Your task to perform on an android device: snooze an email in the gmail app Image 0: 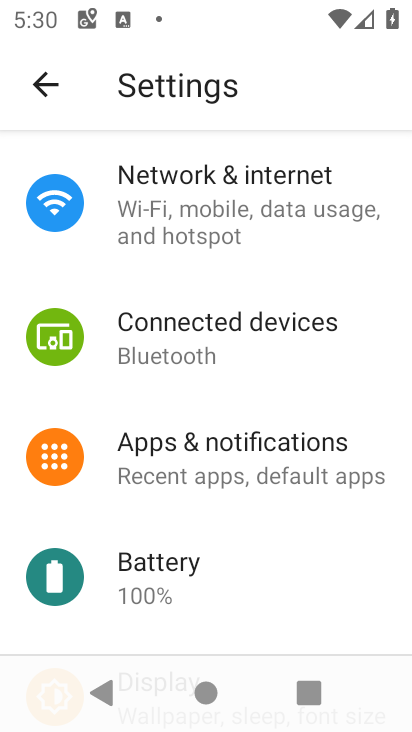
Step 0: press home button
Your task to perform on an android device: snooze an email in the gmail app Image 1: 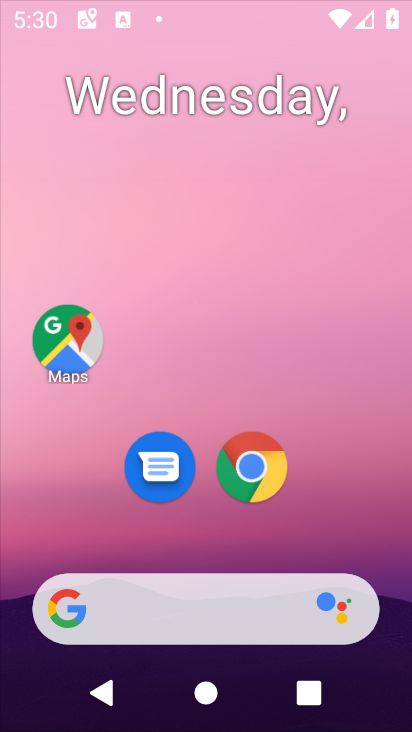
Step 1: drag from (298, 337) to (223, 15)
Your task to perform on an android device: snooze an email in the gmail app Image 2: 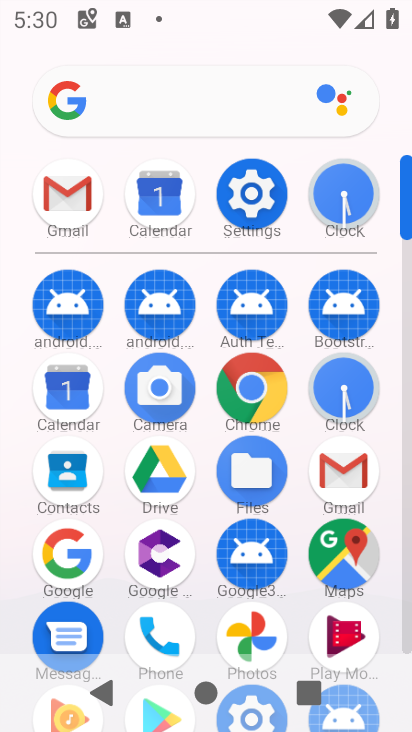
Step 2: click (65, 185)
Your task to perform on an android device: snooze an email in the gmail app Image 3: 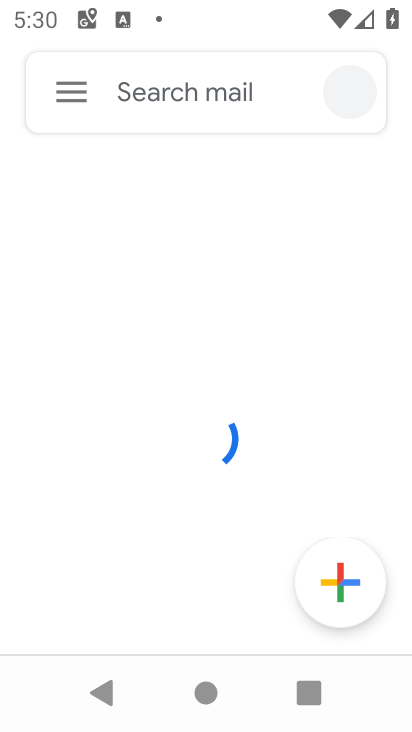
Step 3: click (67, 93)
Your task to perform on an android device: snooze an email in the gmail app Image 4: 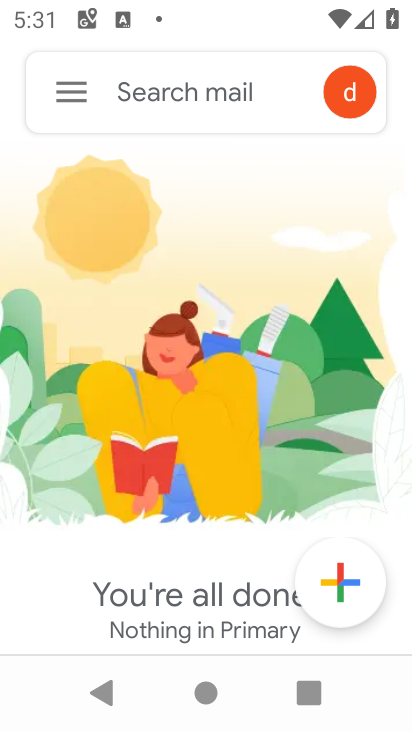
Step 4: click (74, 97)
Your task to perform on an android device: snooze an email in the gmail app Image 5: 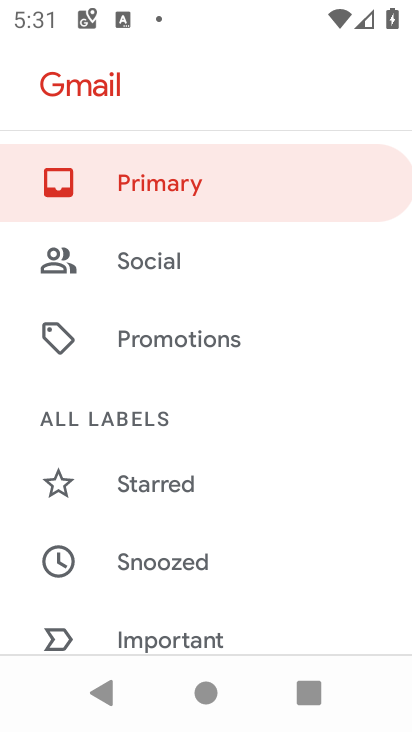
Step 5: click (275, 174)
Your task to perform on an android device: snooze an email in the gmail app Image 6: 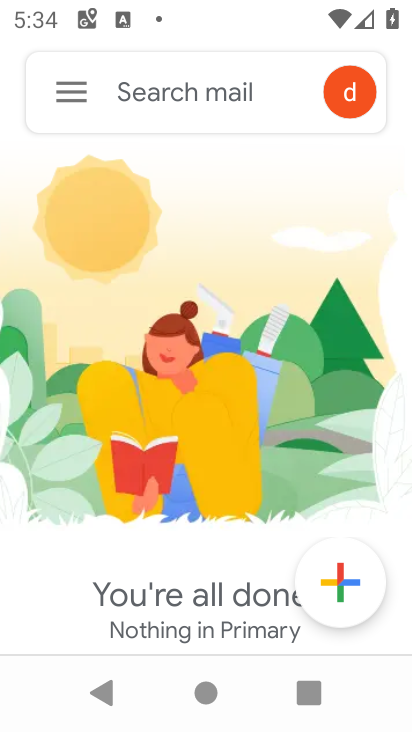
Step 6: task complete